Your task to perform on an android device: toggle notification dots Image 0: 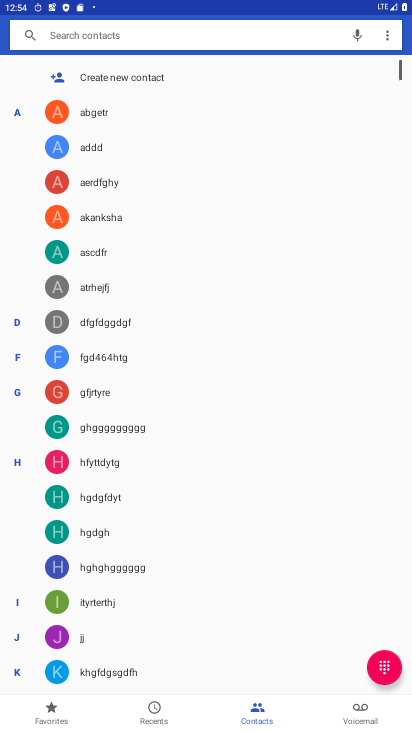
Step 0: press home button
Your task to perform on an android device: toggle notification dots Image 1: 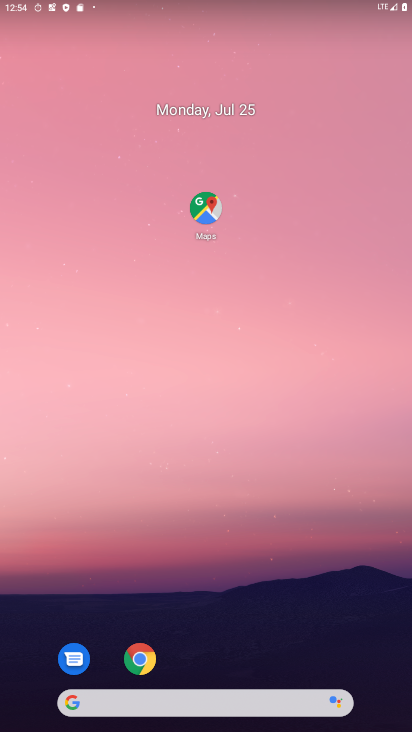
Step 1: drag from (17, 677) to (247, 151)
Your task to perform on an android device: toggle notification dots Image 2: 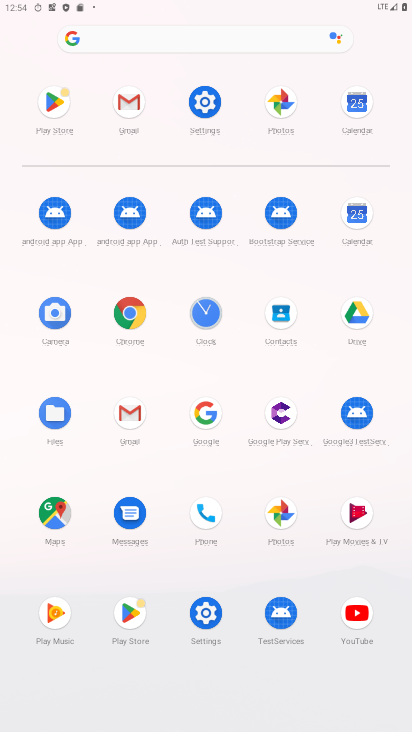
Step 2: click (209, 615)
Your task to perform on an android device: toggle notification dots Image 3: 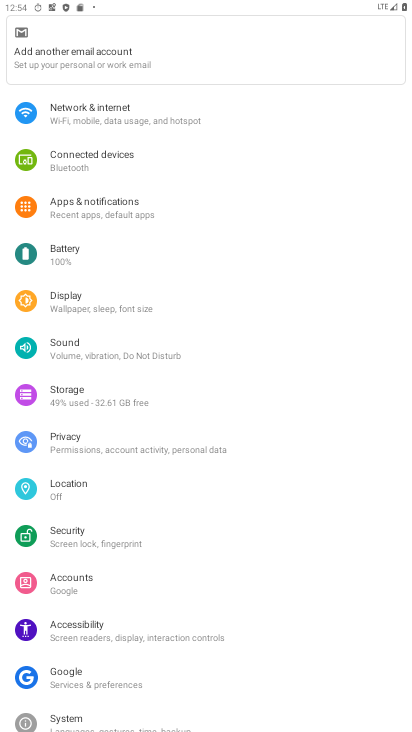
Step 3: click (117, 210)
Your task to perform on an android device: toggle notification dots Image 4: 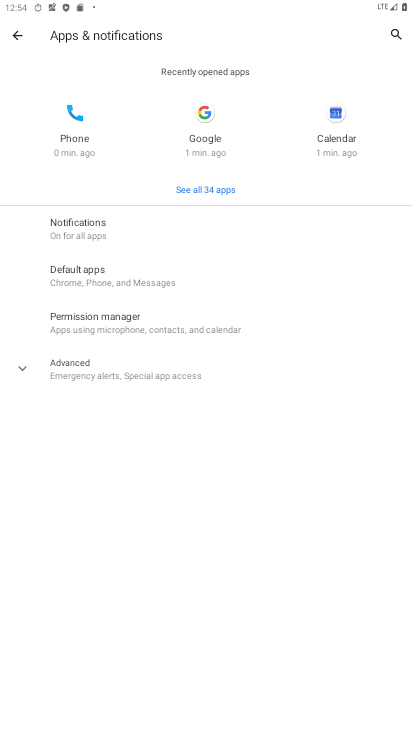
Step 4: click (100, 358)
Your task to perform on an android device: toggle notification dots Image 5: 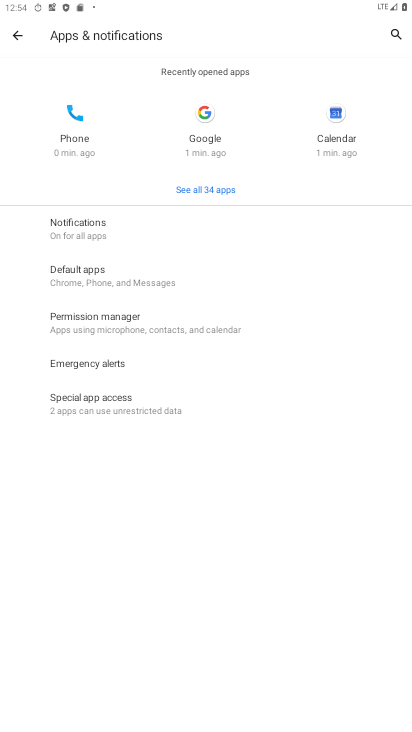
Step 5: click (94, 409)
Your task to perform on an android device: toggle notification dots Image 6: 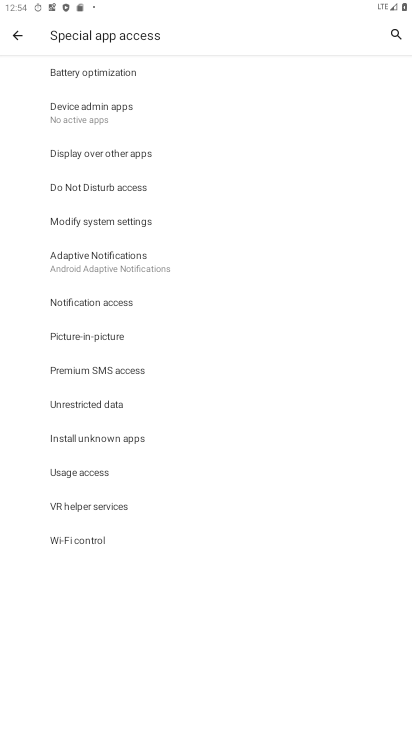
Step 6: click (26, 35)
Your task to perform on an android device: toggle notification dots Image 7: 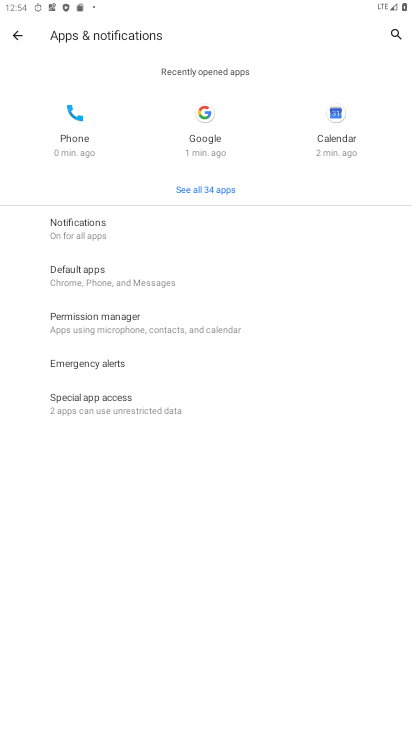
Step 7: click (146, 235)
Your task to perform on an android device: toggle notification dots Image 8: 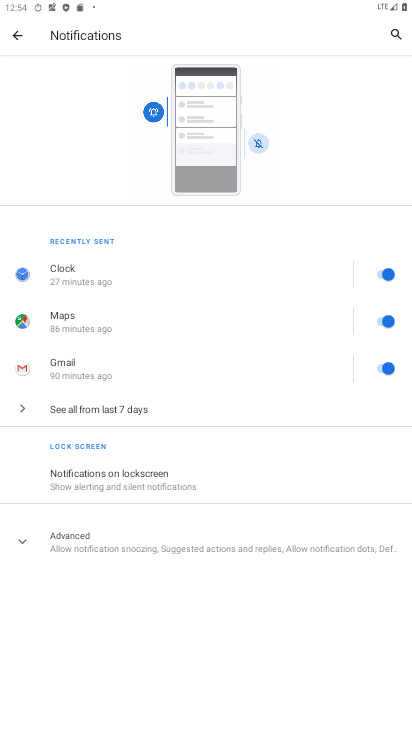
Step 8: click (96, 540)
Your task to perform on an android device: toggle notification dots Image 9: 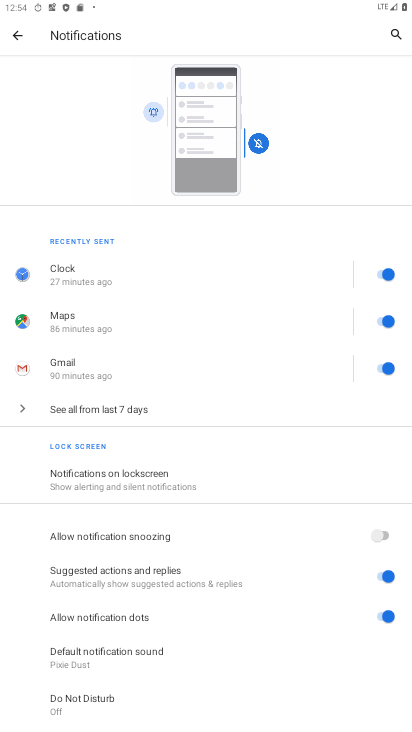
Step 9: task complete